Your task to perform on an android device: Show me recent news Image 0: 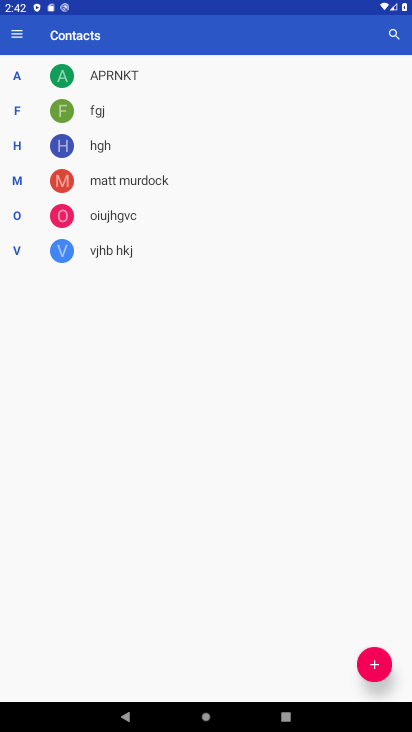
Step 0: press home button
Your task to perform on an android device: Show me recent news Image 1: 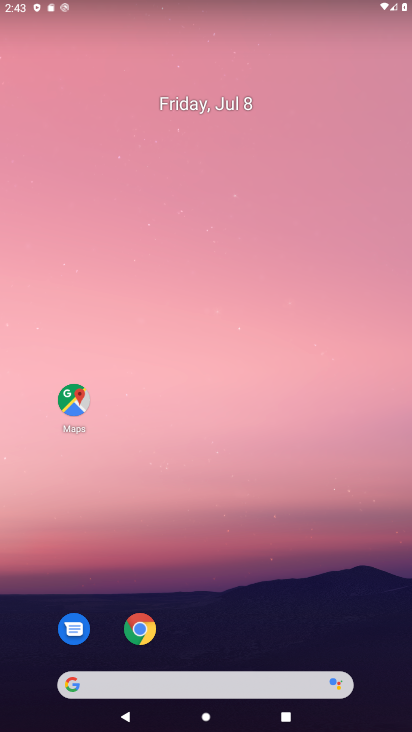
Step 1: click (124, 675)
Your task to perform on an android device: Show me recent news Image 2: 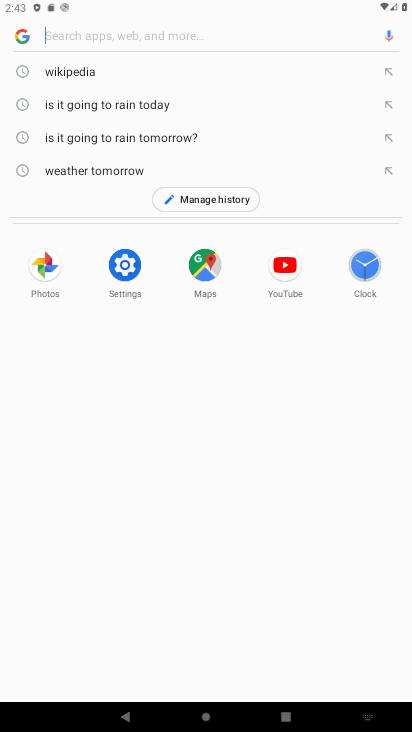
Step 2: type "Show me recent news"
Your task to perform on an android device: Show me recent news Image 3: 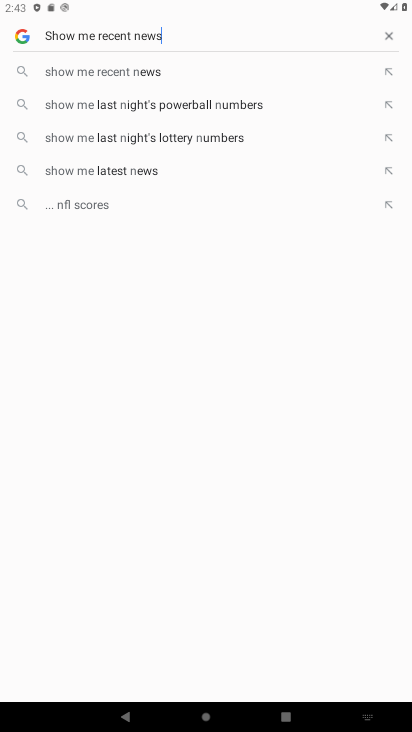
Step 3: type ""
Your task to perform on an android device: Show me recent news Image 4: 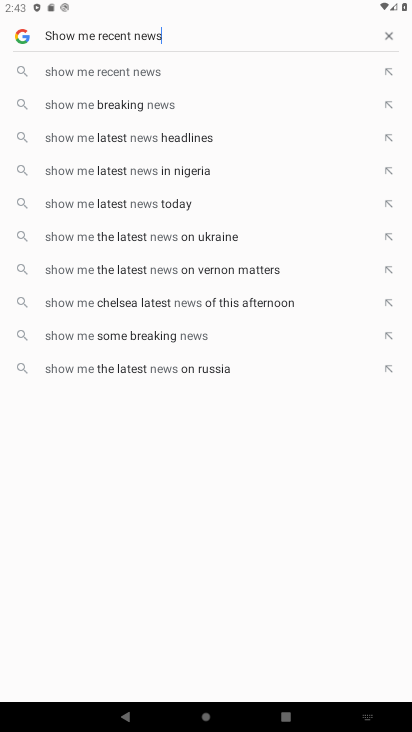
Step 4: click (98, 75)
Your task to perform on an android device: Show me recent news Image 5: 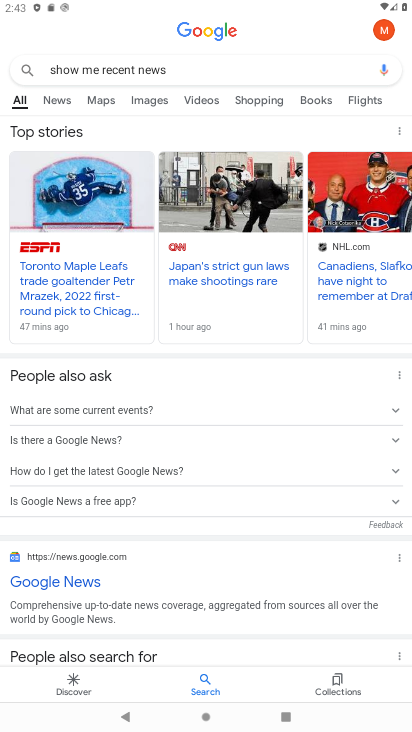
Step 5: task complete